Your task to perform on an android device: Open Google Image 0: 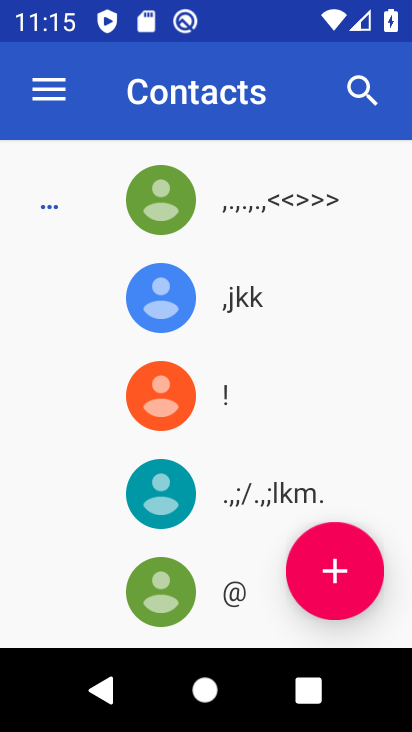
Step 0: click (104, 689)
Your task to perform on an android device: Open Google Image 1: 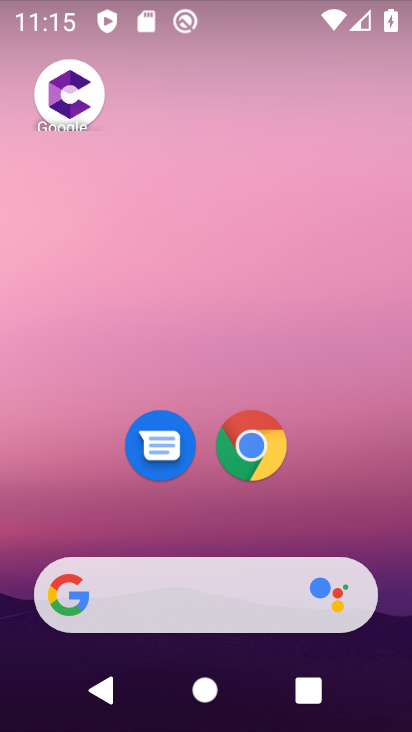
Step 1: drag from (173, 576) to (265, 170)
Your task to perform on an android device: Open Google Image 2: 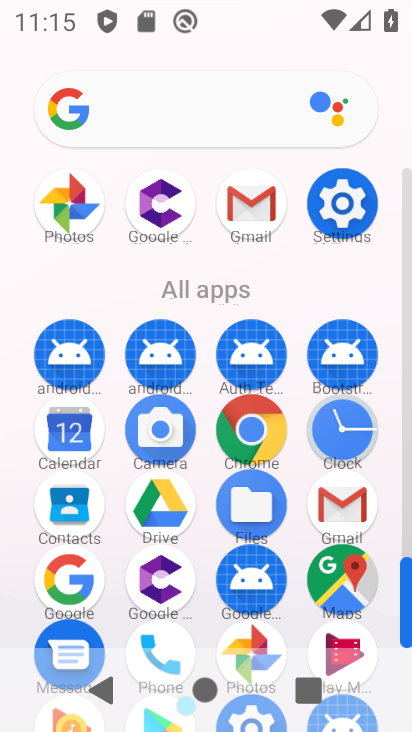
Step 2: drag from (205, 590) to (254, 348)
Your task to perform on an android device: Open Google Image 3: 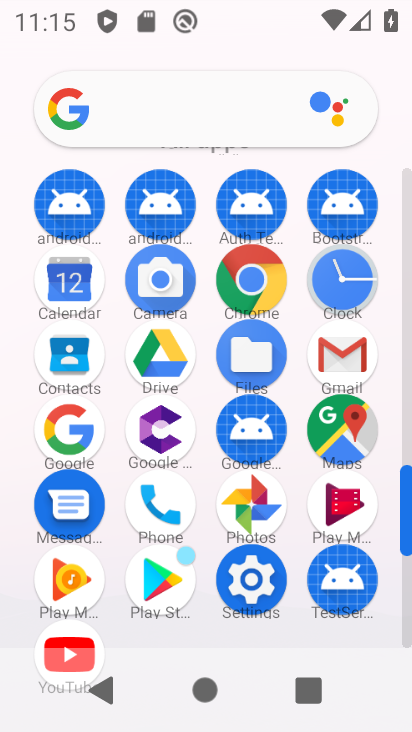
Step 3: click (63, 436)
Your task to perform on an android device: Open Google Image 4: 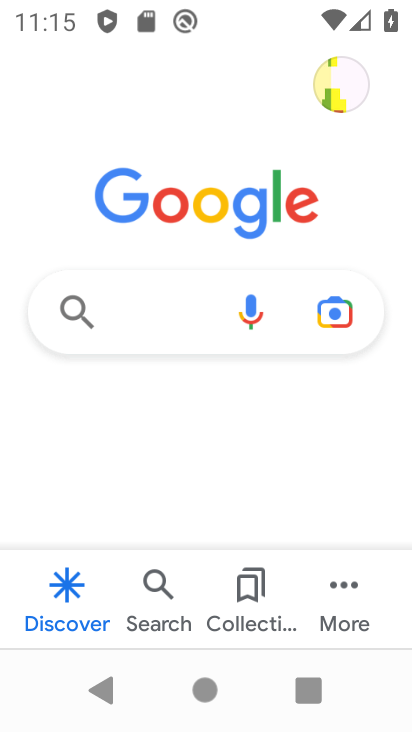
Step 4: task complete